Your task to perform on an android device: empty trash in google photos Image 0: 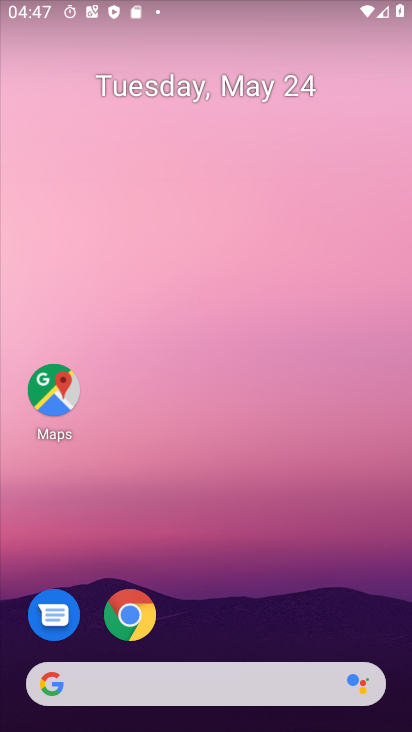
Step 0: drag from (208, 603) to (199, 74)
Your task to perform on an android device: empty trash in google photos Image 1: 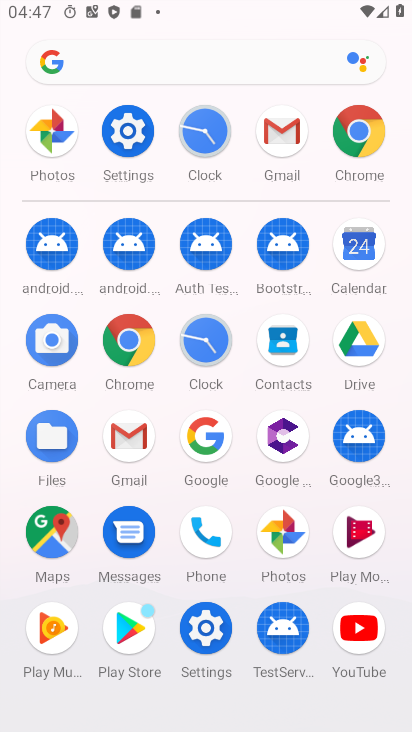
Step 1: click (283, 534)
Your task to perform on an android device: empty trash in google photos Image 2: 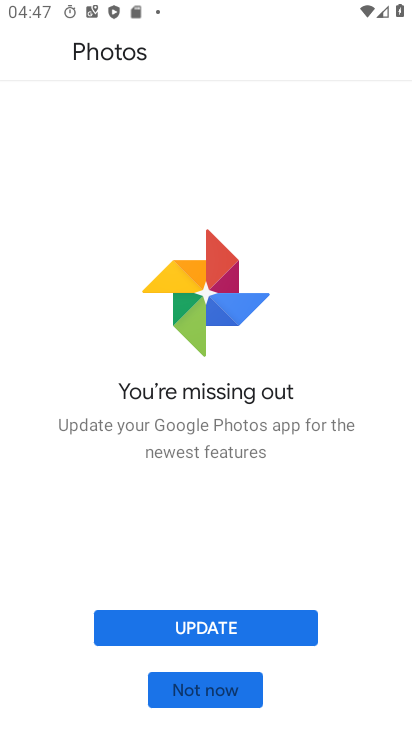
Step 2: click (223, 698)
Your task to perform on an android device: empty trash in google photos Image 3: 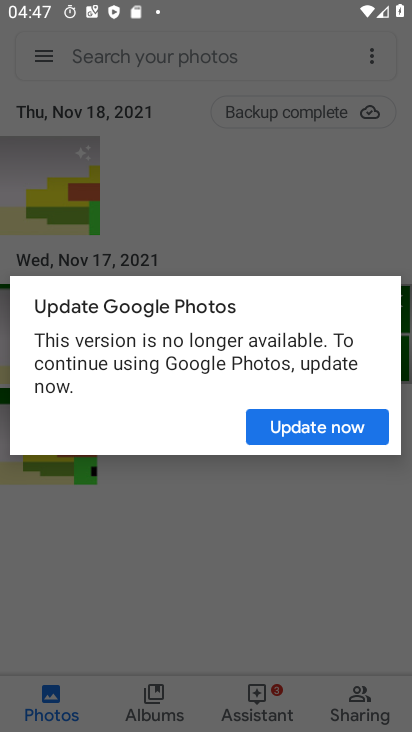
Step 3: click (294, 430)
Your task to perform on an android device: empty trash in google photos Image 4: 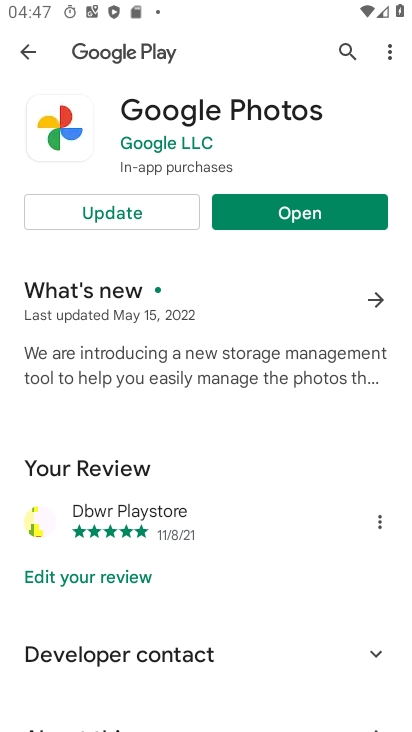
Step 4: click (327, 217)
Your task to perform on an android device: empty trash in google photos Image 5: 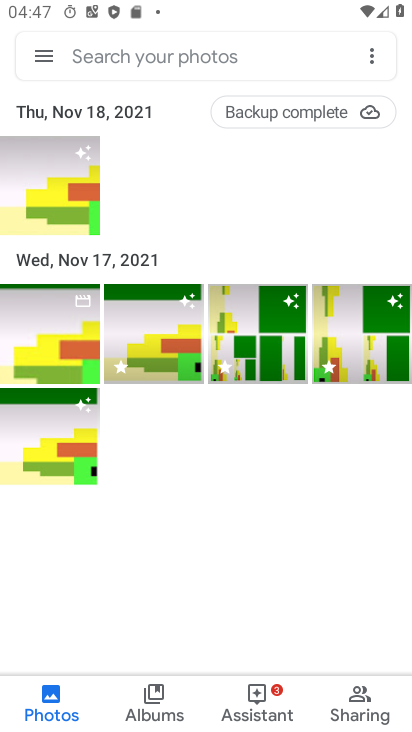
Step 5: click (44, 58)
Your task to perform on an android device: empty trash in google photos Image 6: 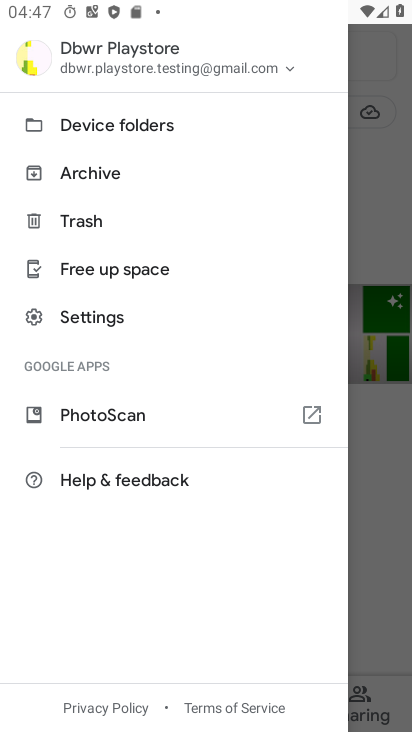
Step 6: click (58, 214)
Your task to perform on an android device: empty trash in google photos Image 7: 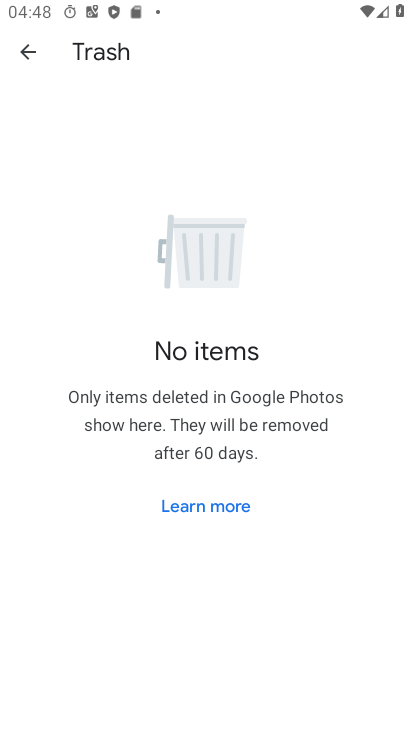
Step 7: task complete